Your task to perform on an android device: toggle pop-ups in chrome Image 0: 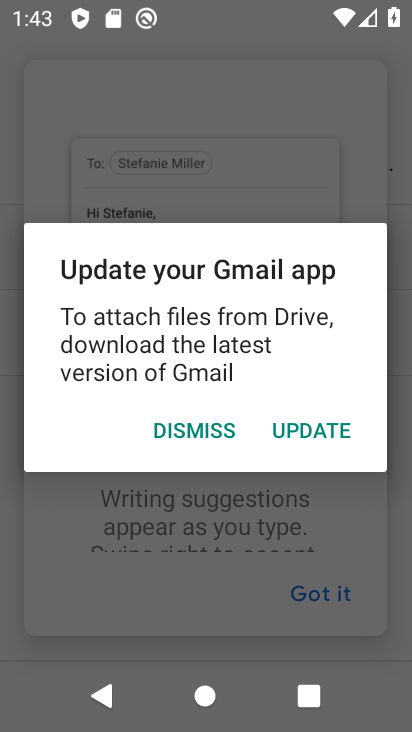
Step 0: press home button
Your task to perform on an android device: toggle pop-ups in chrome Image 1: 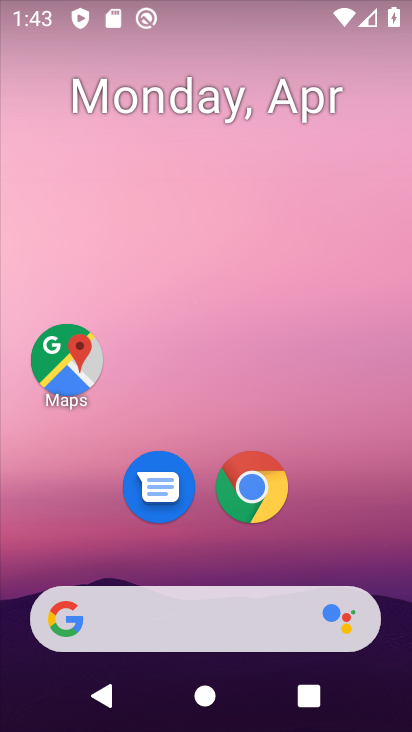
Step 1: drag from (290, 623) to (354, 56)
Your task to perform on an android device: toggle pop-ups in chrome Image 2: 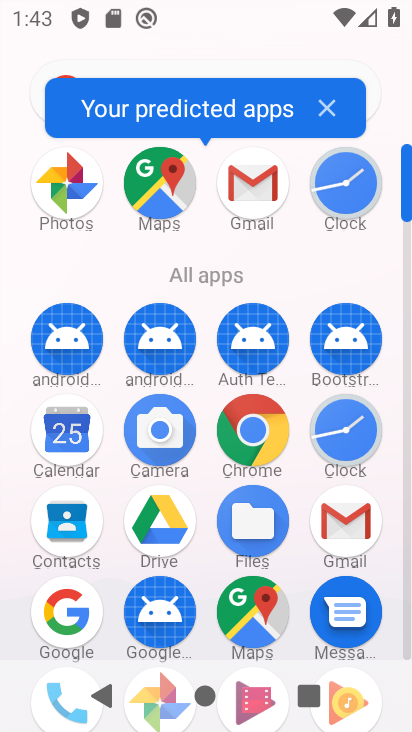
Step 2: click (250, 433)
Your task to perform on an android device: toggle pop-ups in chrome Image 3: 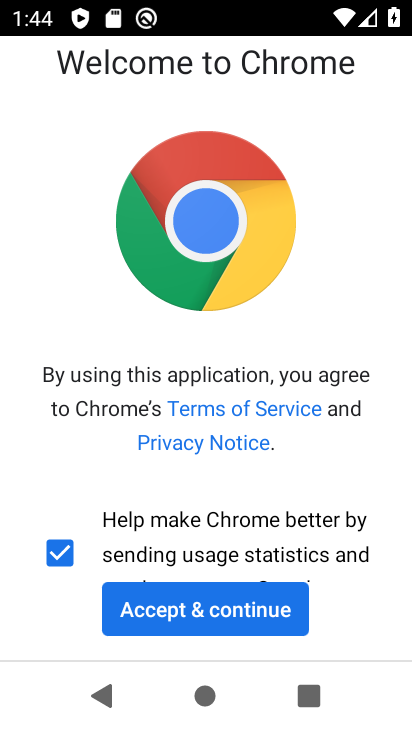
Step 3: click (221, 606)
Your task to perform on an android device: toggle pop-ups in chrome Image 4: 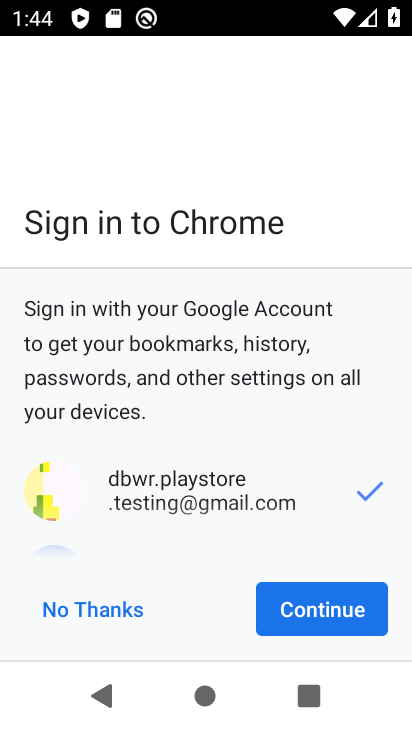
Step 4: click (324, 615)
Your task to perform on an android device: toggle pop-ups in chrome Image 5: 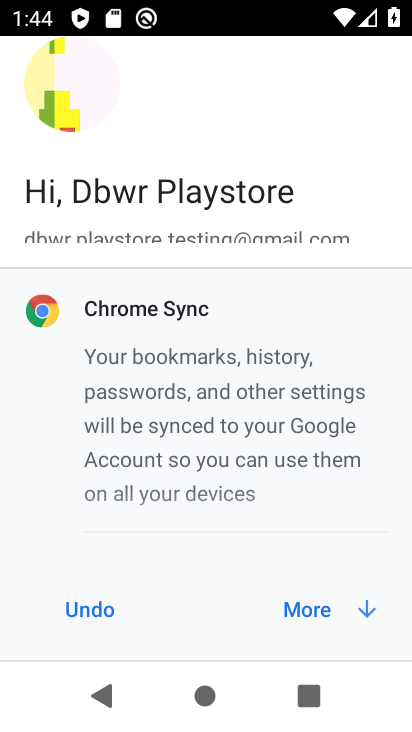
Step 5: click (363, 596)
Your task to perform on an android device: toggle pop-ups in chrome Image 6: 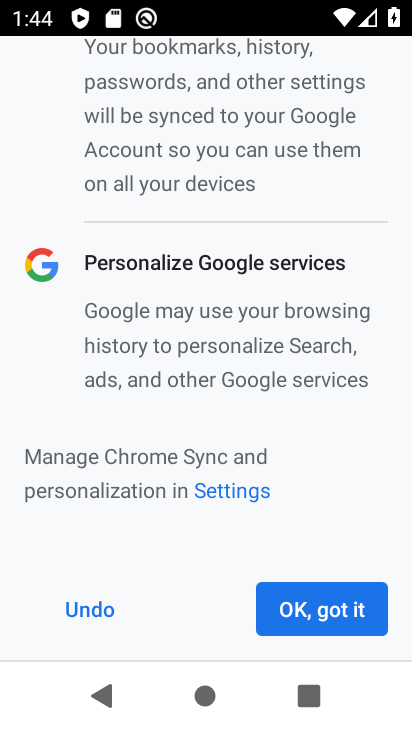
Step 6: click (348, 594)
Your task to perform on an android device: toggle pop-ups in chrome Image 7: 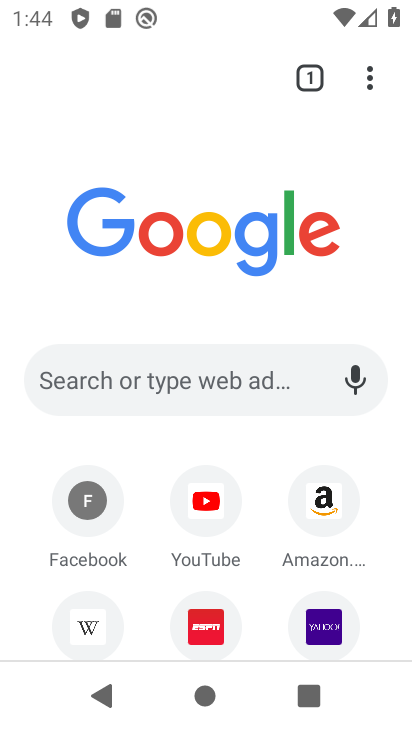
Step 7: click (375, 89)
Your task to perform on an android device: toggle pop-ups in chrome Image 8: 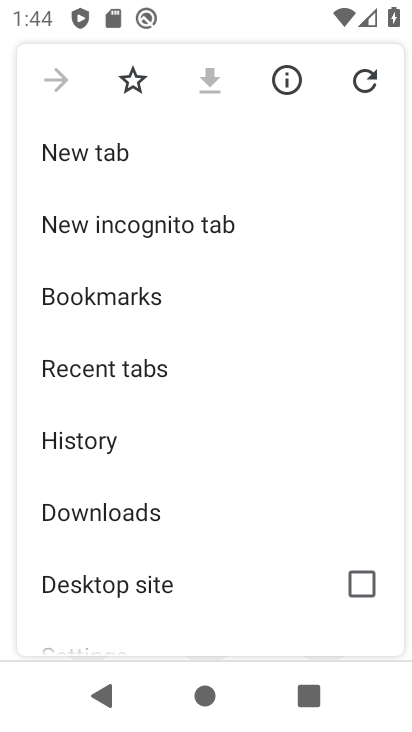
Step 8: drag from (154, 507) to (111, 327)
Your task to perform on an android device: toggle pop-ups in chrome Image 9: 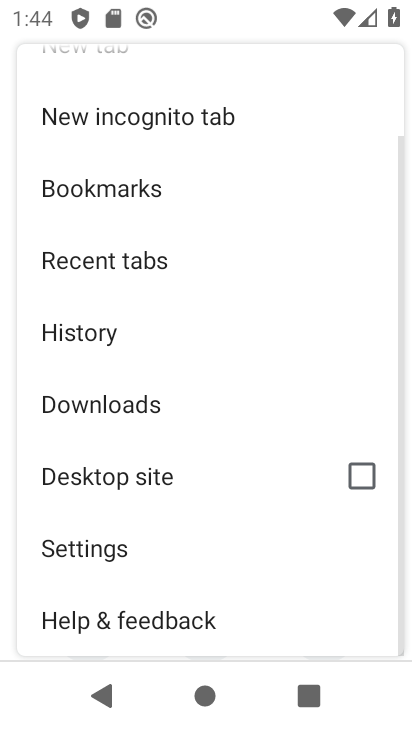
Step 9: click (101, 545)
Your task to perform on an android device: toggle pop-ups in chrome Image 10: 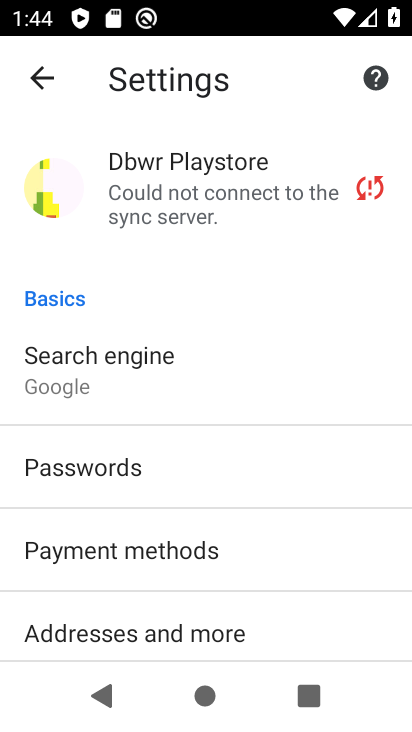
Step 10: drag from (170, 550) to (224, 230)
Your task to perform on an android device: toggle pop-ups in chrome Image 11: 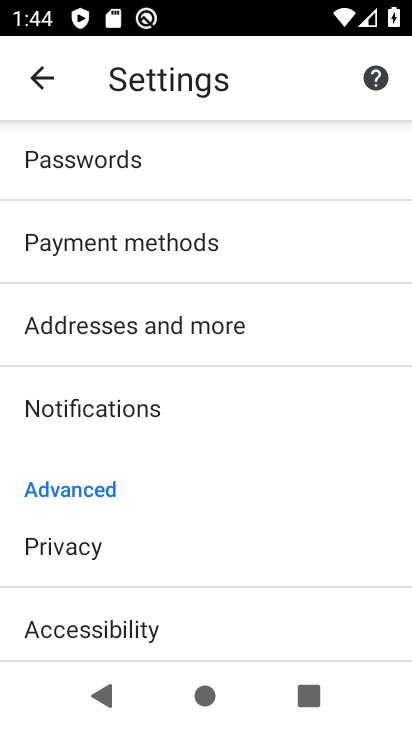
Step 11: drag from (159, 521) to (194, 373)
Your task to perform on an android device: toggle pop-ups in chrome Image 12: 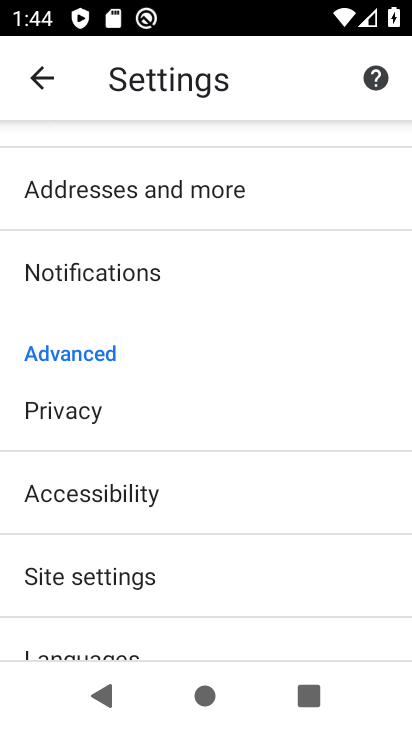
Step 12: click (129, 592)
Your task to perform on an android device: toggle pop-ups in chrome Image 13: 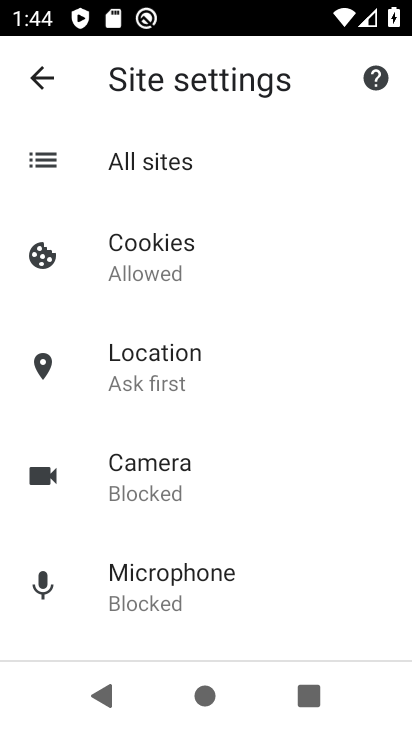
Step 13: drag from (195, 579) to (244, 299)
Your task to perform on an android device: toggle pop-ups in chrome Image 14: 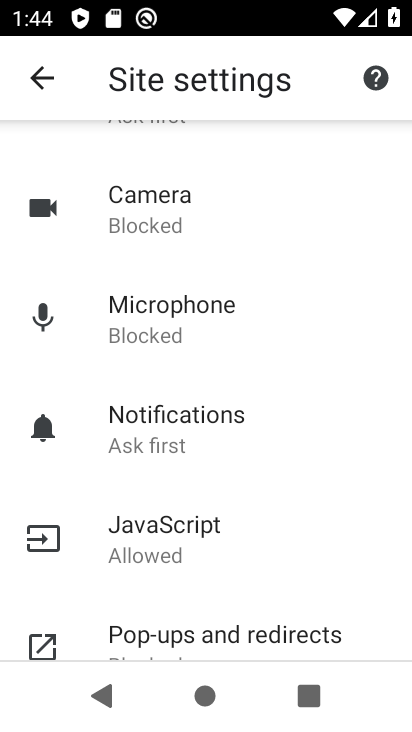
Step 14: click (185, 635)
Your task to perform on an android device: toggle pop-ups in chrome Image 15: 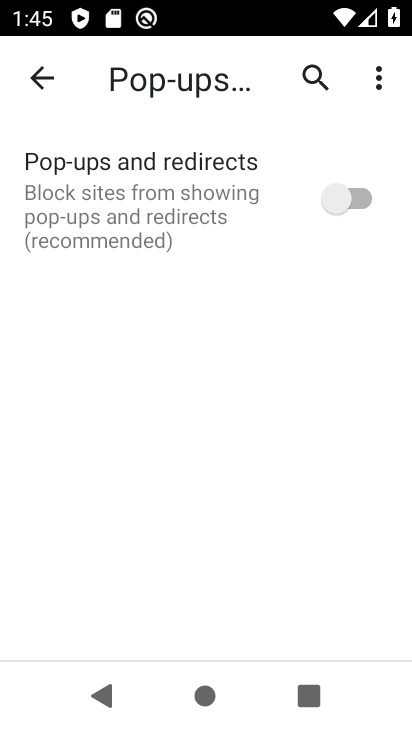
Step 15: task complete